Your task to perform on an android device: Open the calendar and show me this week's events Image 0: 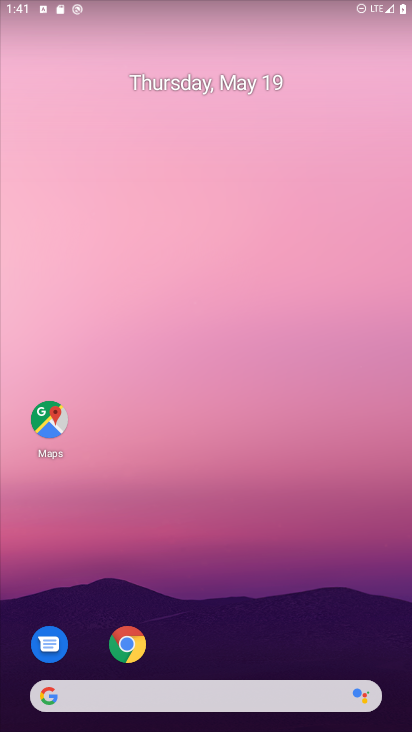
Step 0: drag from (359, 616) to (287, 352)
Your task to perform on an android device: Open the calendar and show me this week's events Image 1: 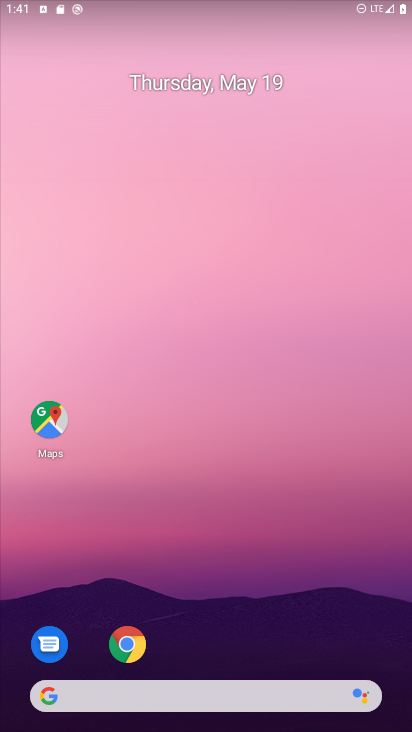
Step 1: drag from (275, 630) to (260, 207)
Your task to perform on an android device: Open the calendar and show me this week's events Image 2: 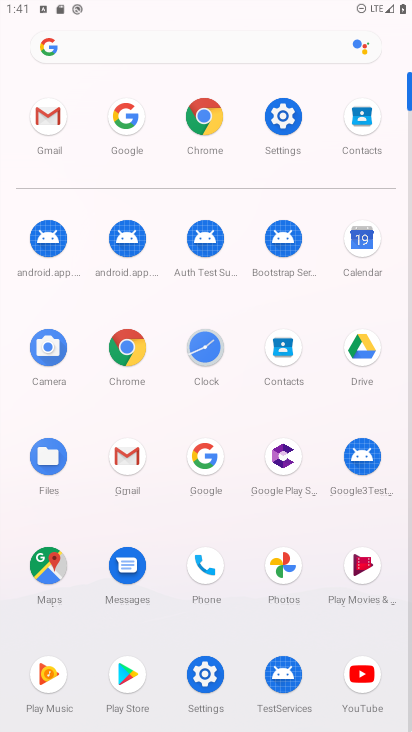
Step 2: click (362, 257)
Your task to perform on an android device: Open the calendar and show me this week's events Image 3: 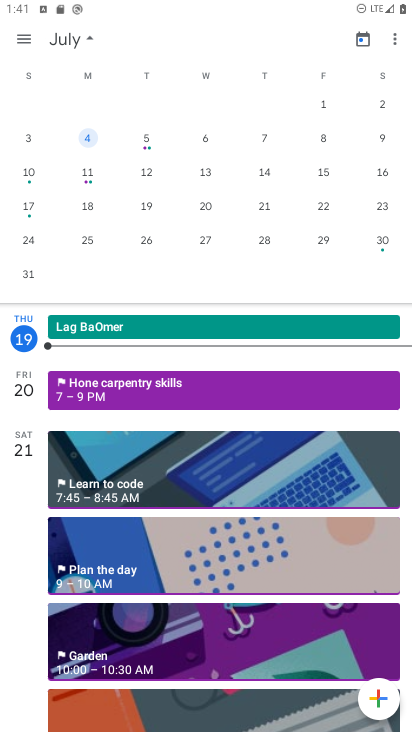
Step 3: task complete